Your task to perform on an android device: Go to eBay Image 0: 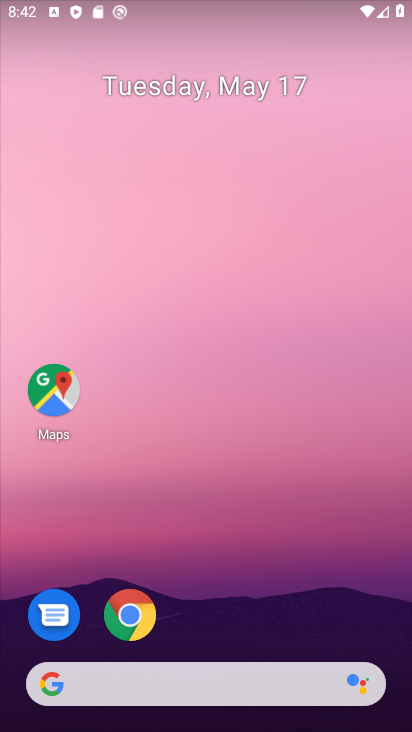
Step 0: click (129, 620)
Your task to perform on an android device: Go to eBay Image 1: 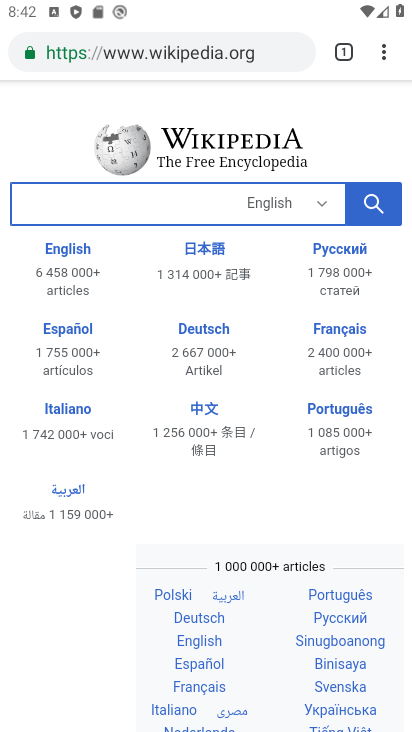
Step 1: click (167, 49)
Your task to perform on an android device: Go to eBay Image 2: 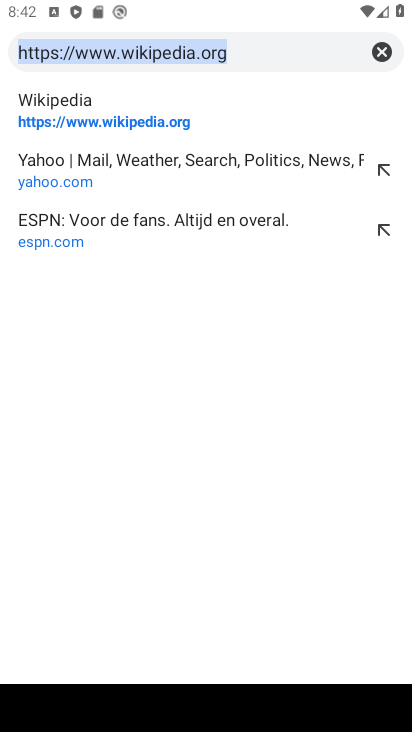
Step 2: click (380, 50)
Your task to perform on an android device: Go to eBay Image 3: 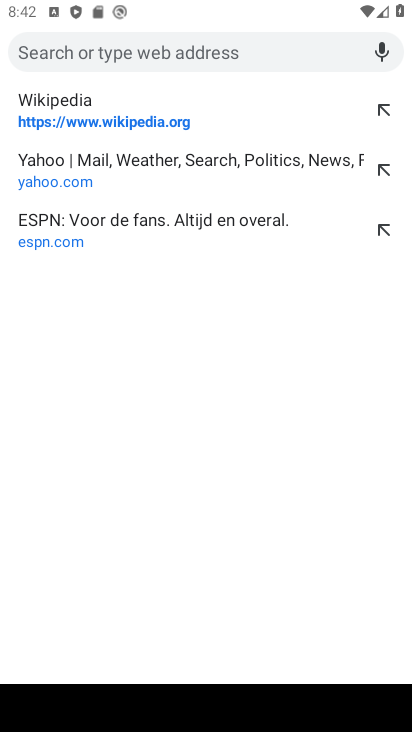
Step 3: type "ebay"
Your task to perform on an android device: Go to eBay Image 4: 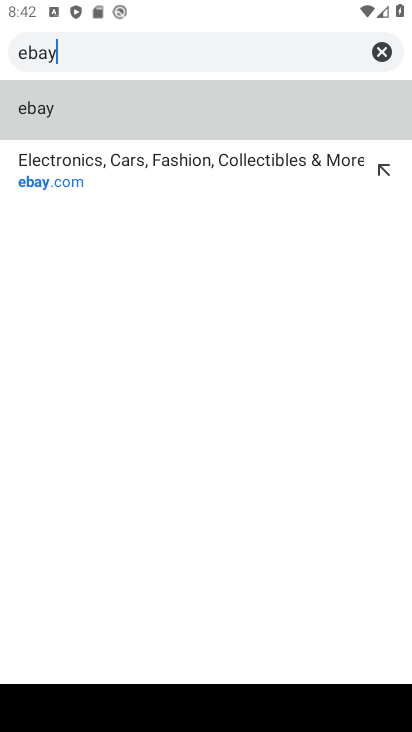
Step 4: click (56, 173)
Your task to perform on an android device: Go to eBay Image 5: 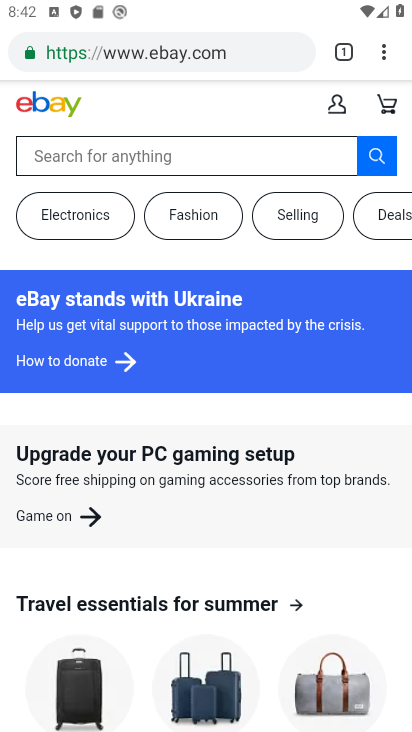
Step 5: task complete